Your task to perform on an android device: turn off picture-in-picture Image 0: 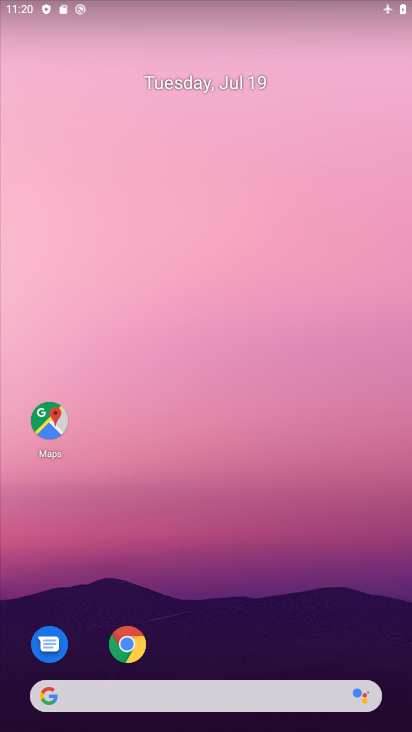
Step 0: drag from (33, 693) to (142, 210)
Your task to perform on an android device: turn off picture-in-picture Image 1: 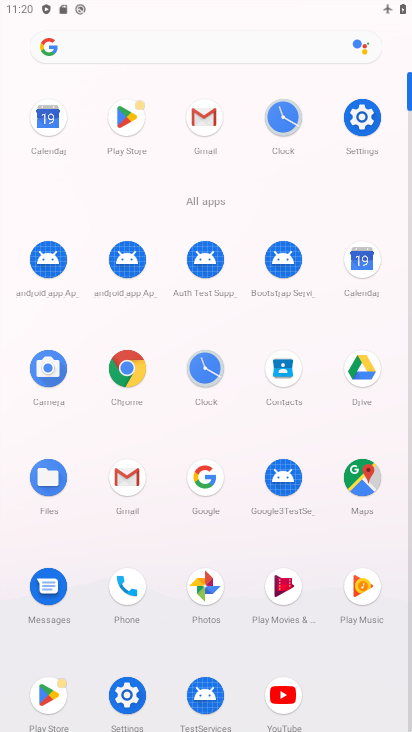
Step 1: click (124, 688)
Your task to perform on an android device: turn off picture-in-picture Image 2: 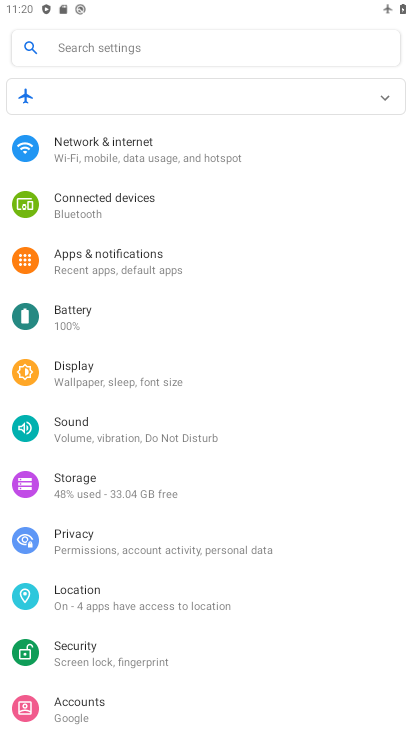
Step 2: drag from (158, 235) to (144, 722)
Your task to perform on an android device: turn off picture-in-picture Image 3: 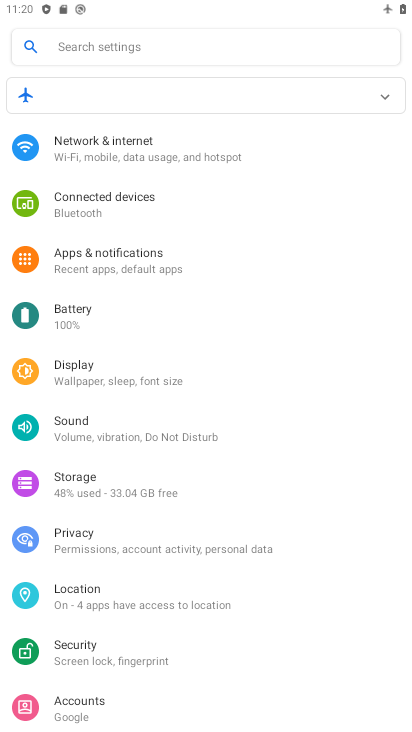
Step 3: click (153, 158)
Your task to perform on an android device: turn off picture-in-picture Image 4: 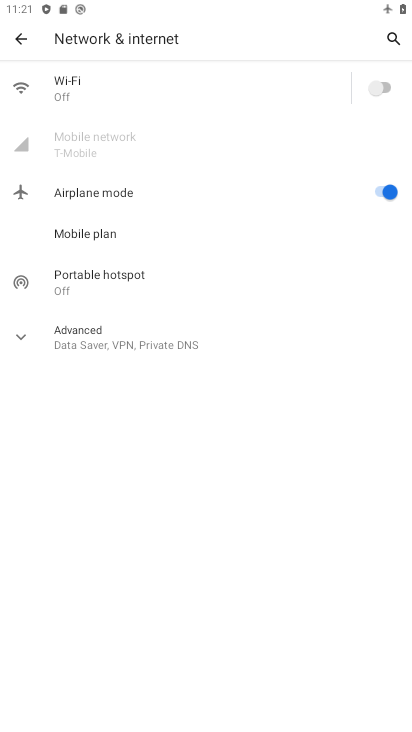
Step 4: click (371, 89)
Your task to perform on an android device: turn off picture-in-picture Image 5: 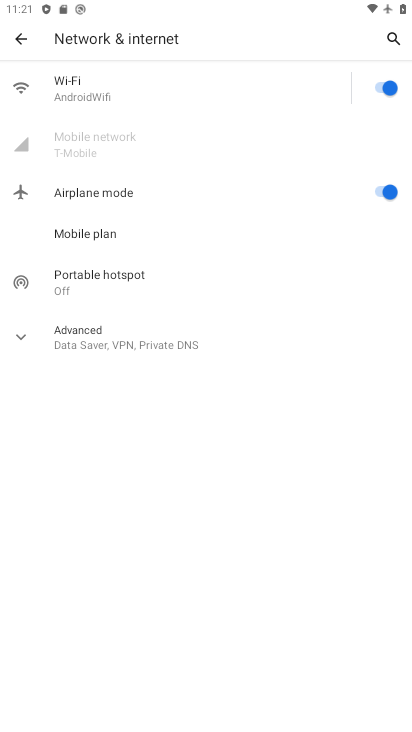
Step 5: task complete